Your task to perform on an android device: Open internet settings Image 0: 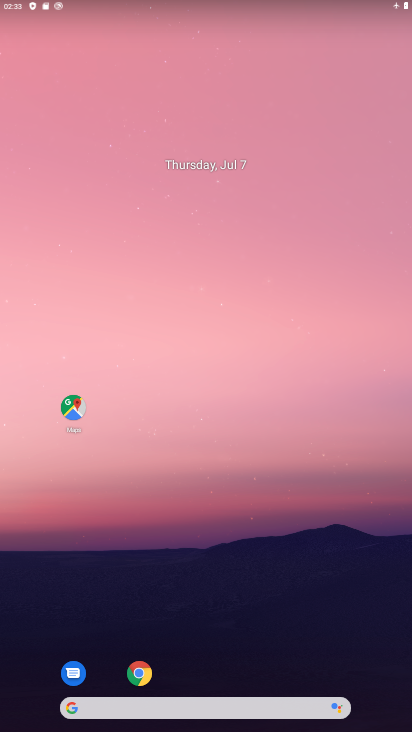
Step 0: drag from (221, 571) to (223, 3)
Your task to perform on an android device: Open internet settings Image 1: 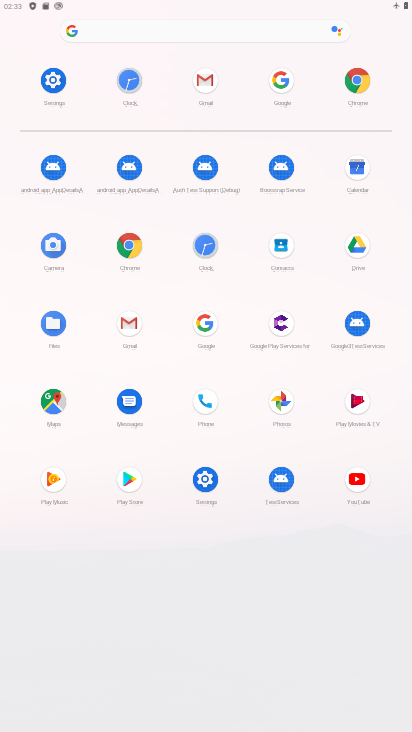
Step 1: click (50, 84)
Your task to perform on an android device: Open internet settings Image 2: 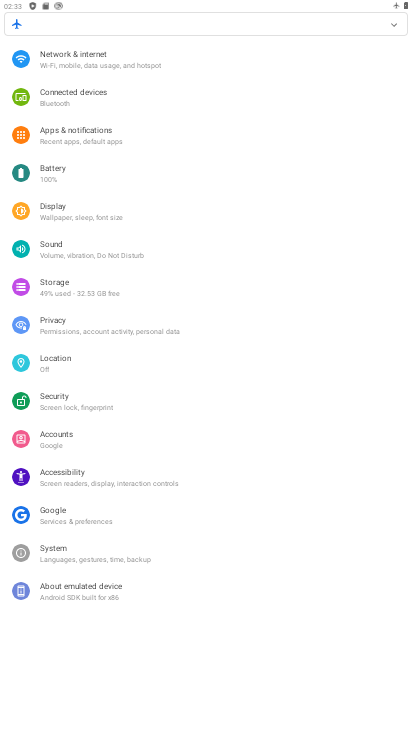
Step 2: click (94, 71)
Your task to perform on an android device: Open internet settings Image 3: 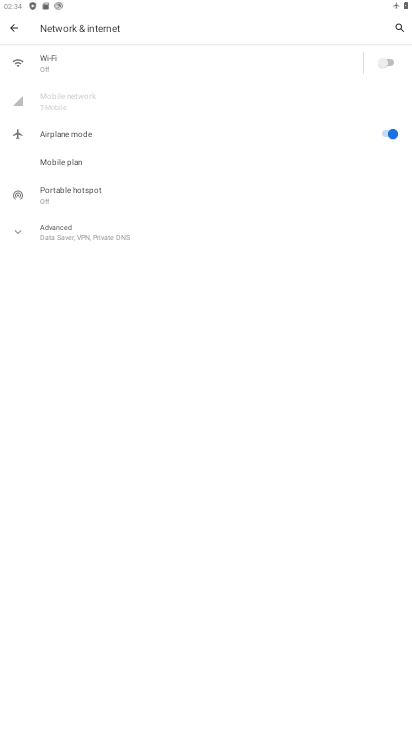
Step 3: task complete